Your task to perform on an android device: Empty the shopping cart on walmart. Image 0: 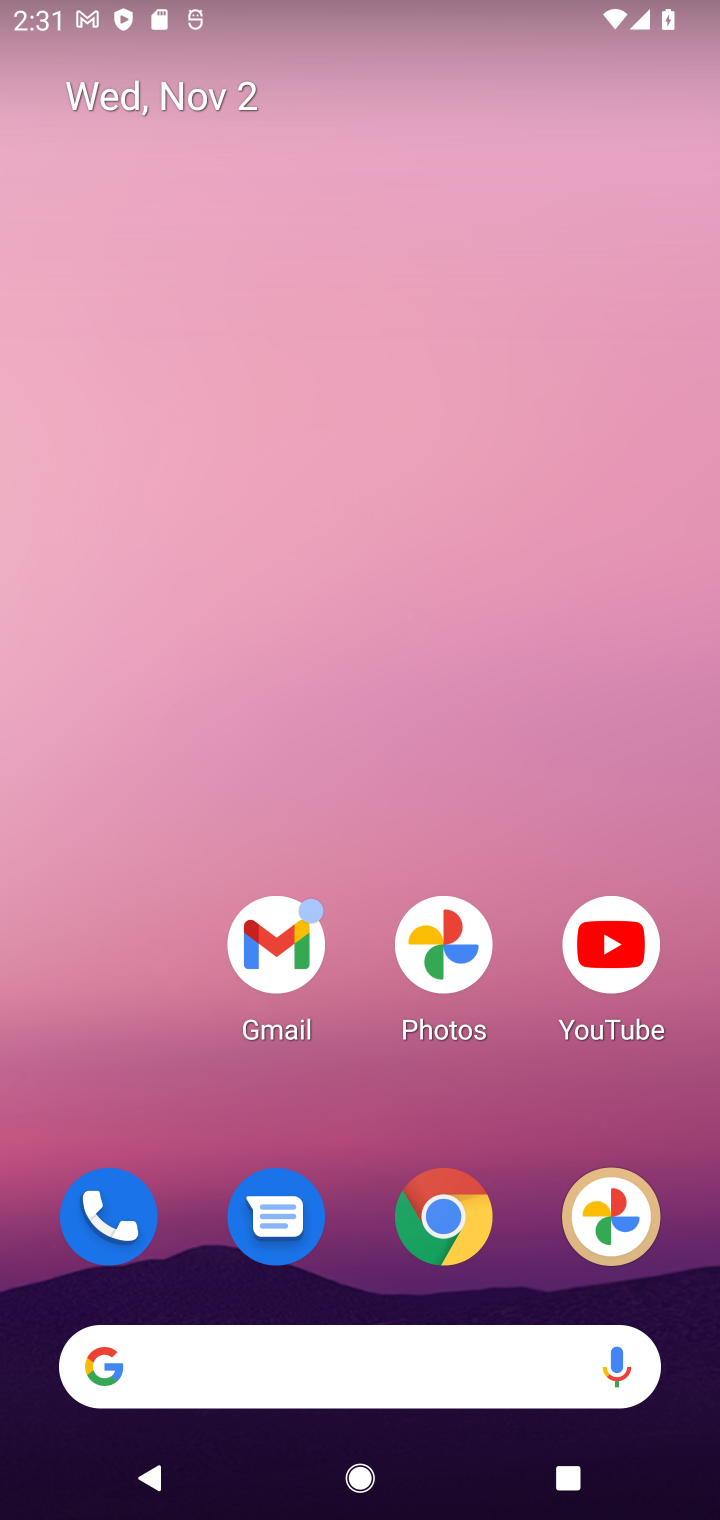
Step 0: click (437, 1228)
Your task to perform on an android device: Empty the shopping cart on walmart. Image 1: 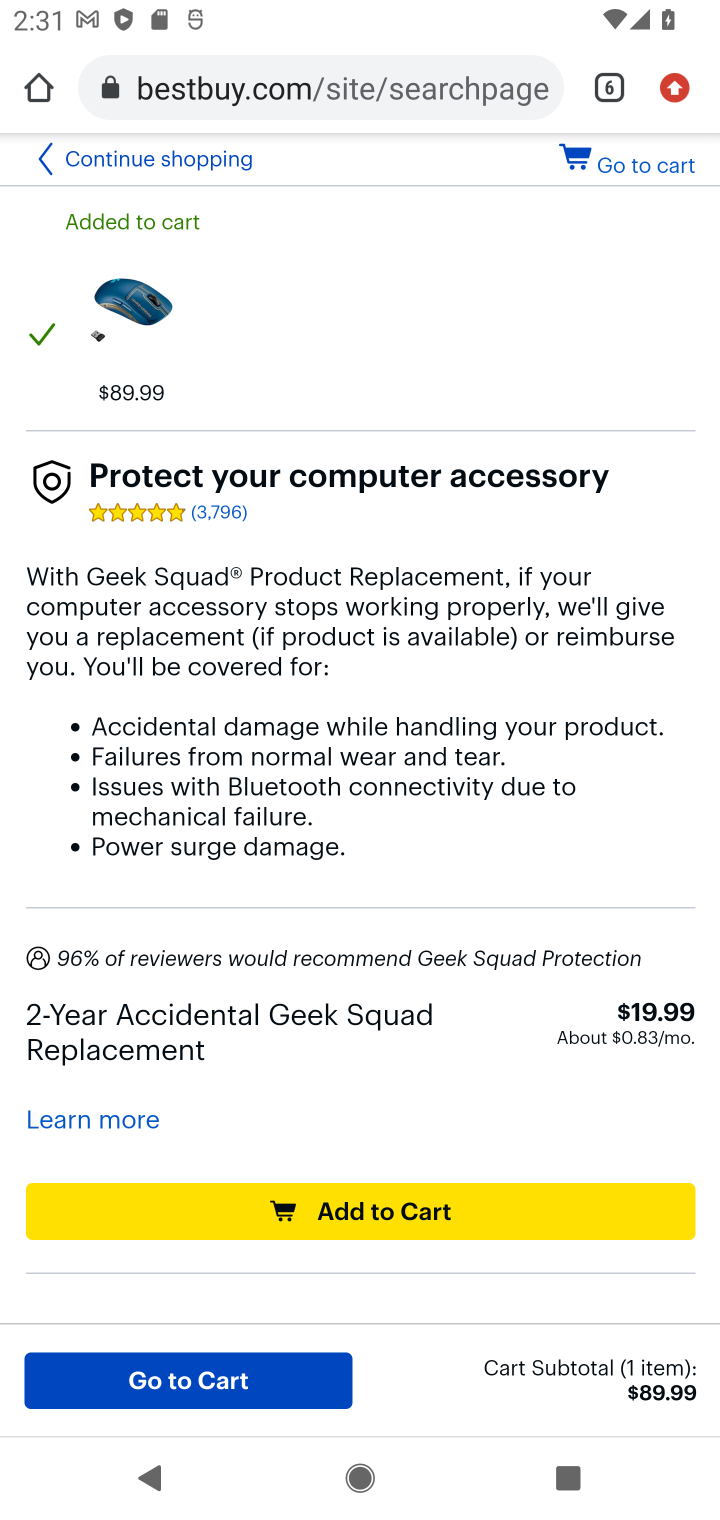
Step 1: click (601, 76)
Your task to perform on an android device: Empty the shopping cart on walmart. Image 2: 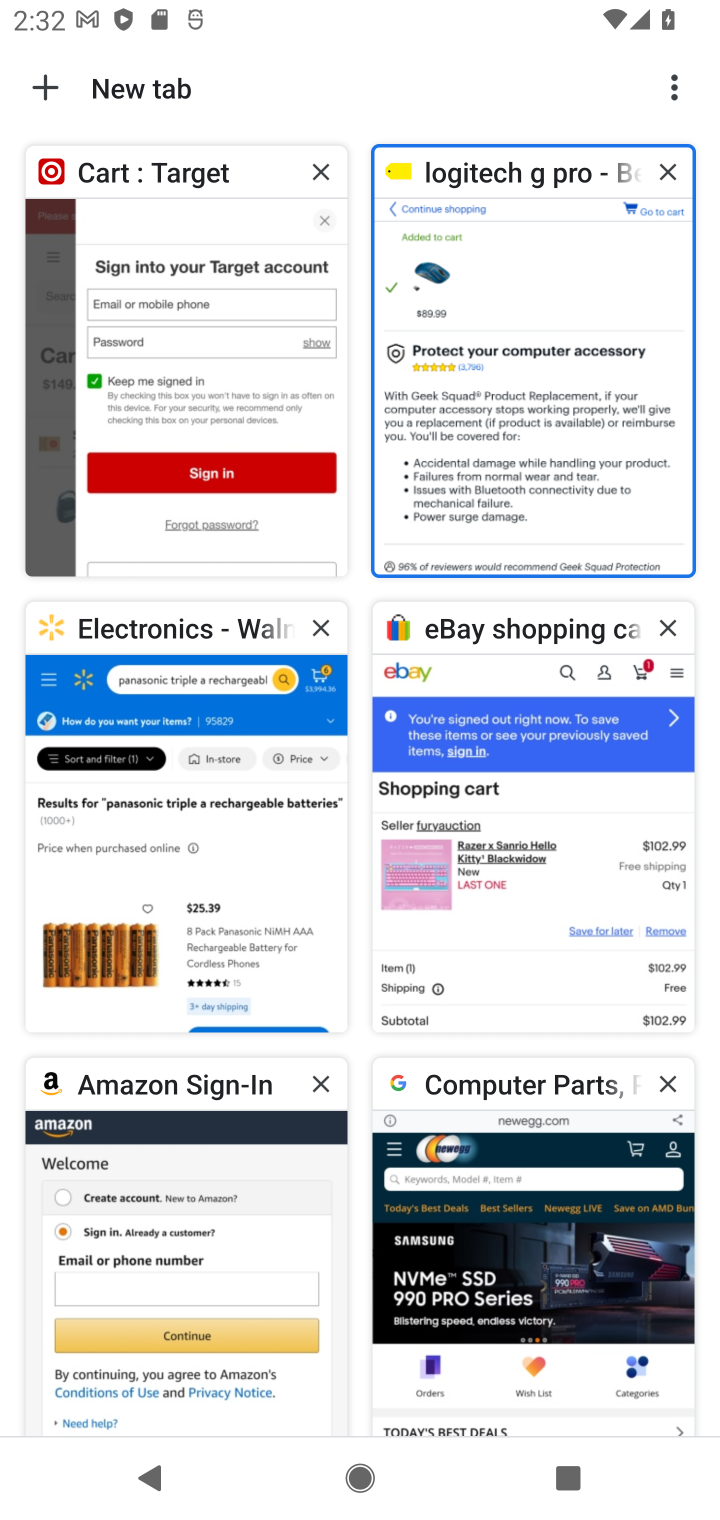
Step 2: click (164, 724)
Your task to perform on an android device: Empty the shopping cart on walmart. Image 3: 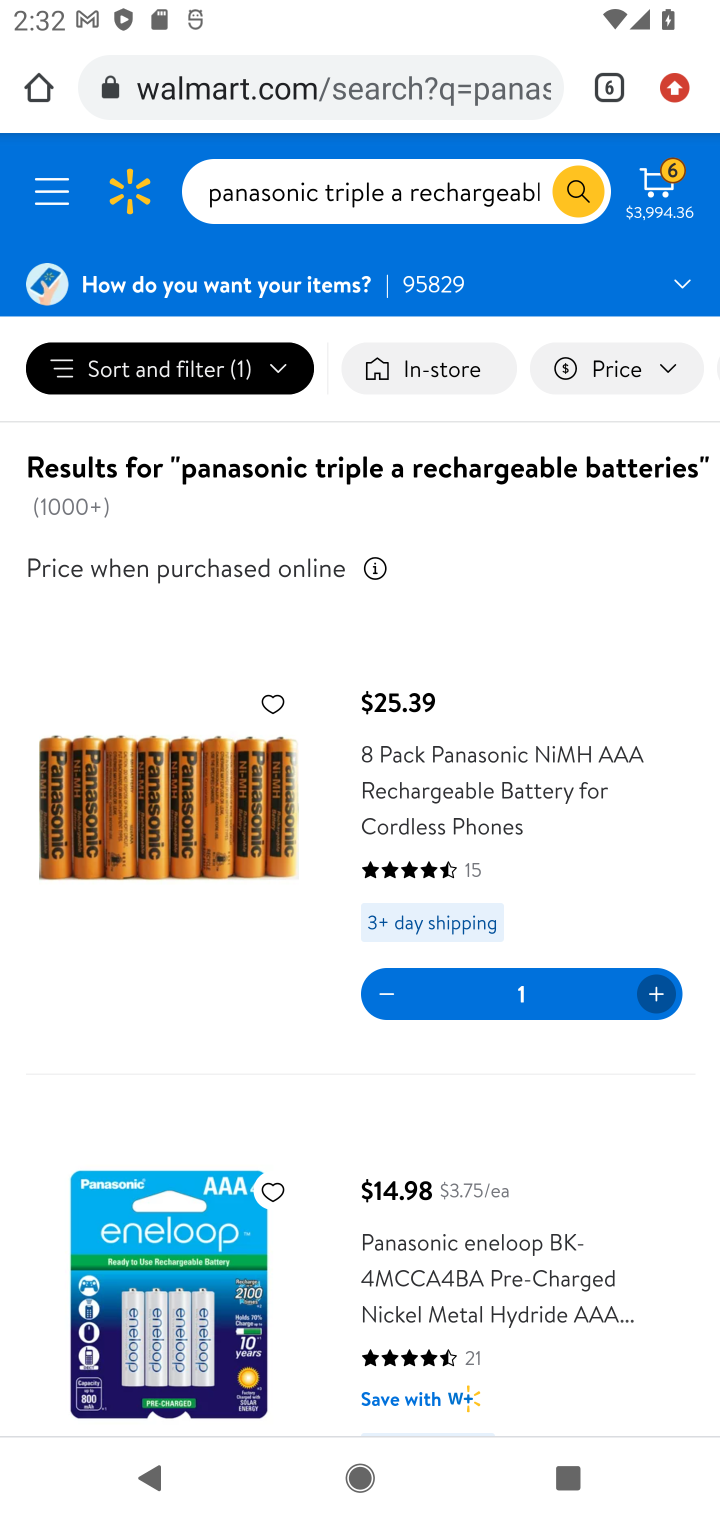
Step 3: click (164, 724)
Your task to perform on an android device: Empty the shopping cart on walmart. Image 4: 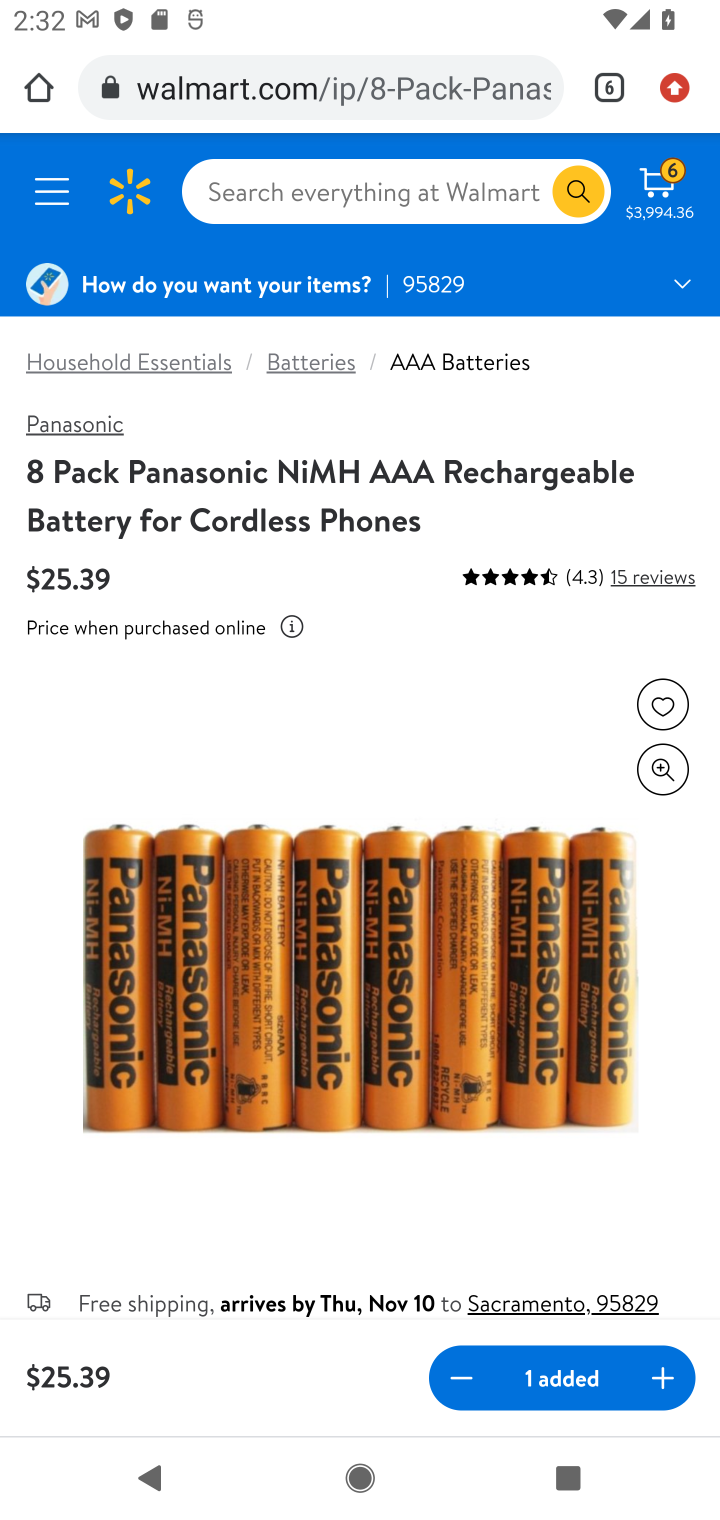
Step 4: click (661, 181)
Your task to perform on an android device: Empty the shopping cart on walmart. Image 5: 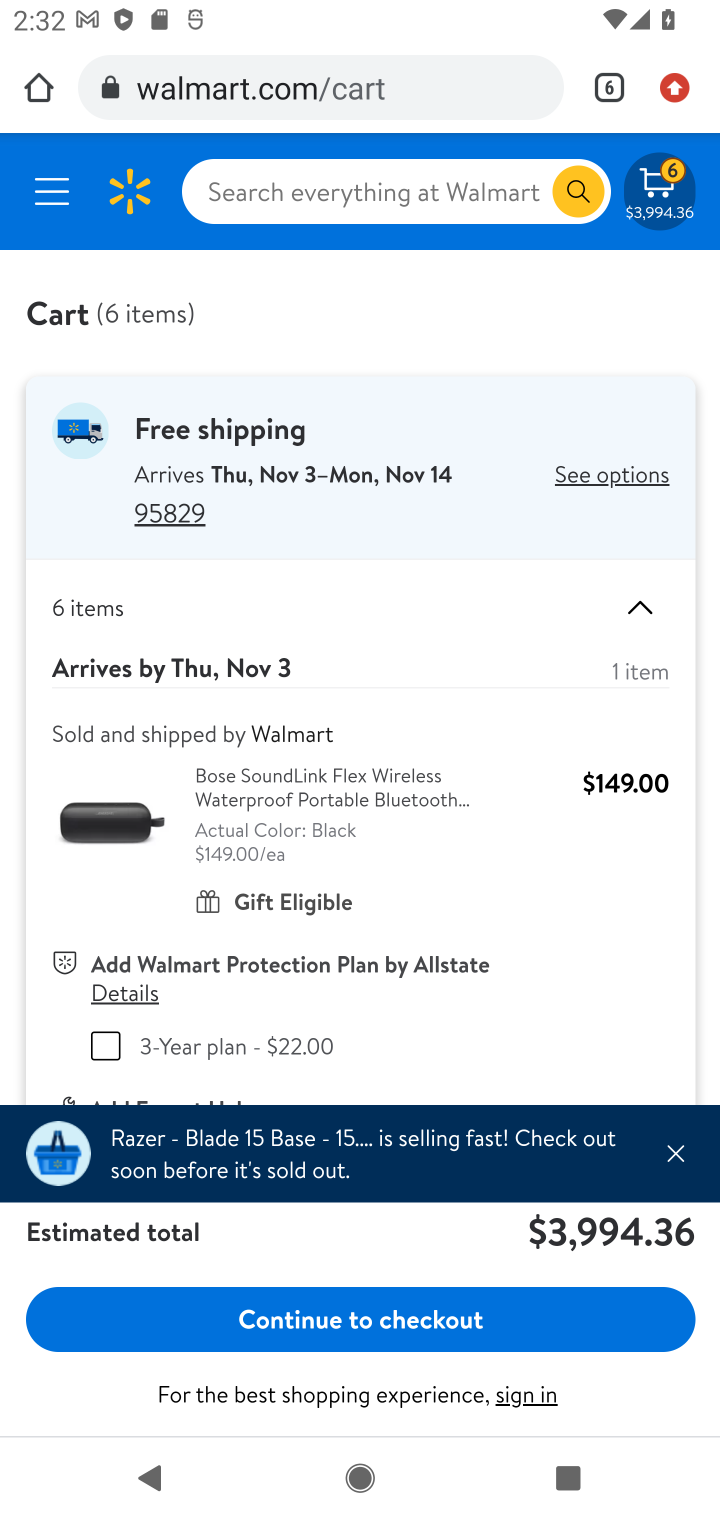
Step 5: drag from (475, 1036) to (456, 752)
Your task to perform on an android device: Empty the shopping cart on walmart. Image 6: 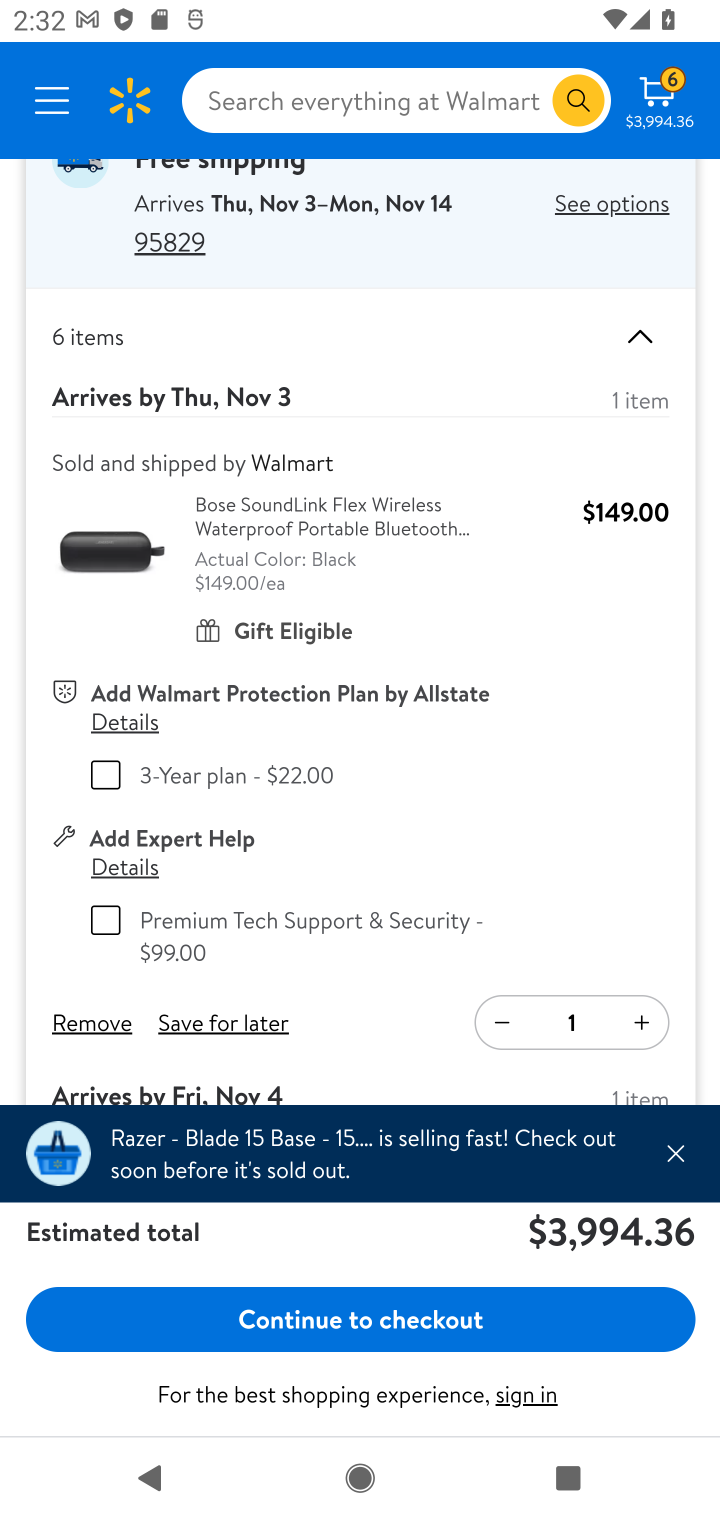
Step 6: click (90, 1020)
Your task to perform on an android device: Empty the shopping cart on walmart. Image 7: 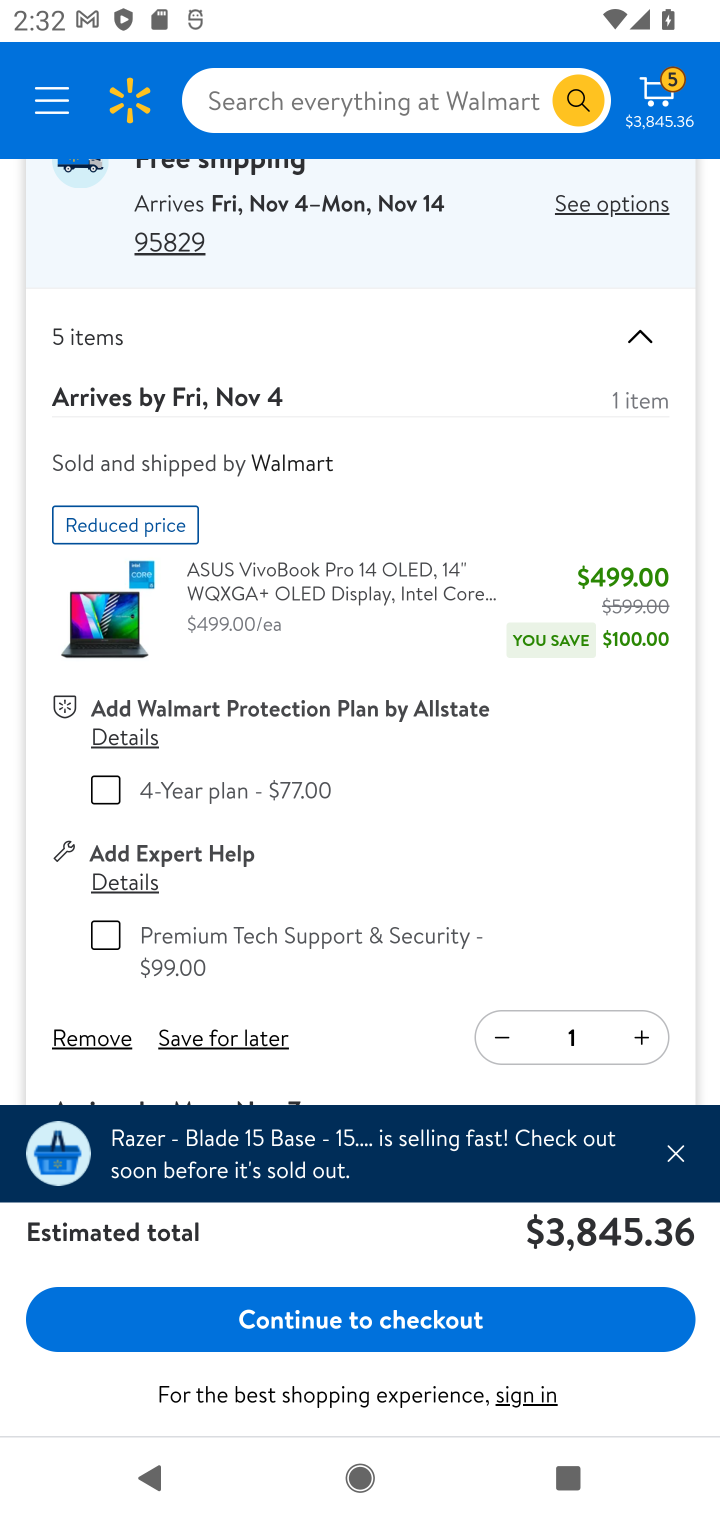
Step 7: click (79, 1037)
Your task to perform on an android device: Empty the shopping cart on walmart. Image 8: 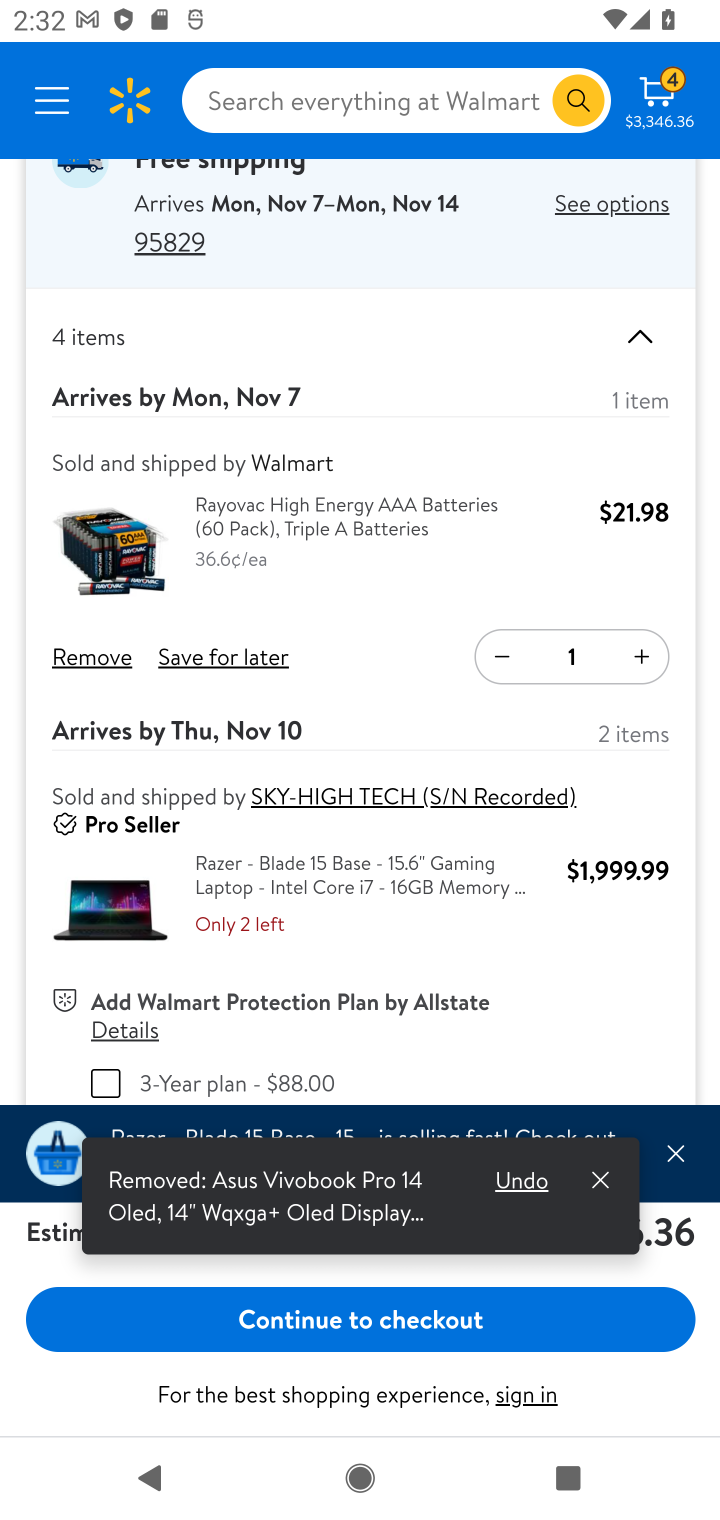
Step 8: click (679, 1158)
Your task to perform on an android device: Empty the shopping cart on walmart. Image 9: 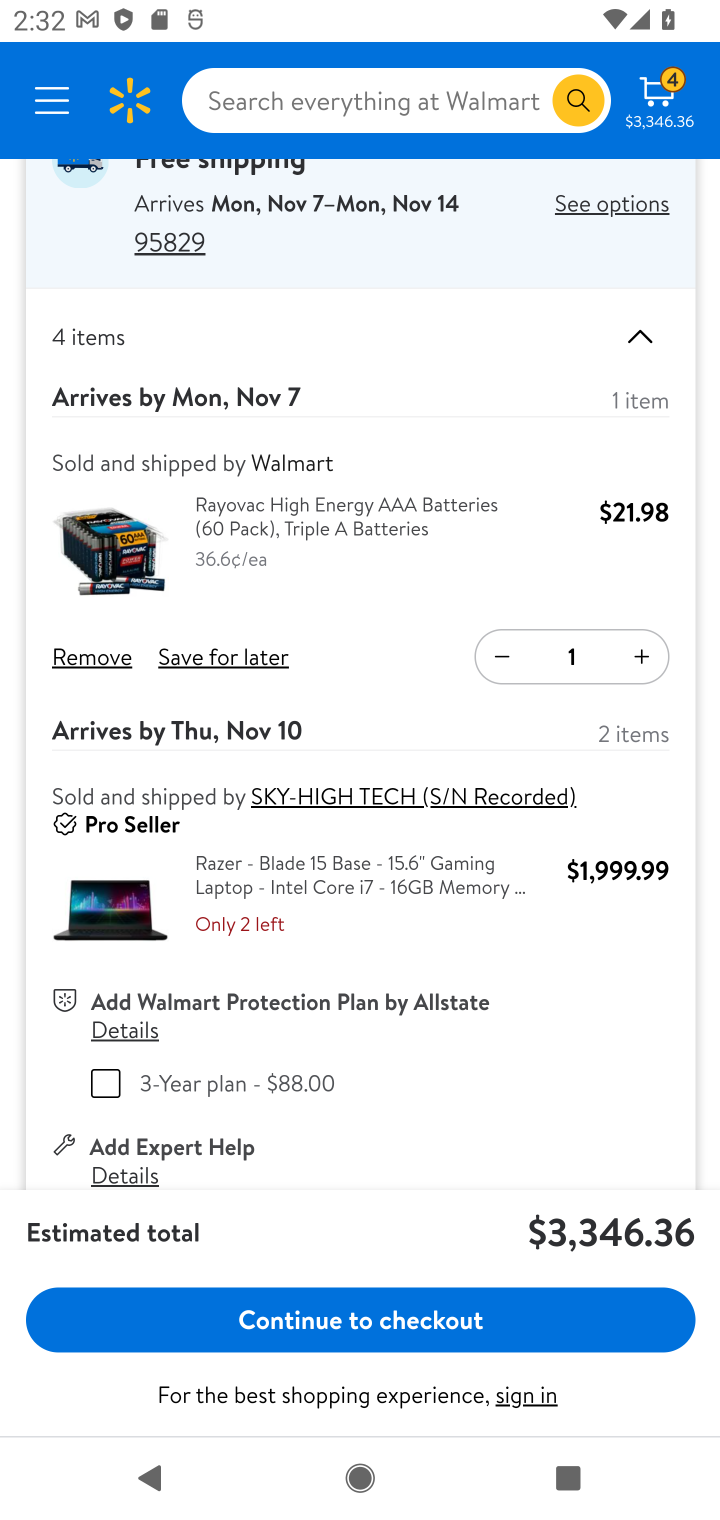
Step 9: click (84, 661)
Your task to perform on an android device: Empty the shopping cart on walmart. Image 10: 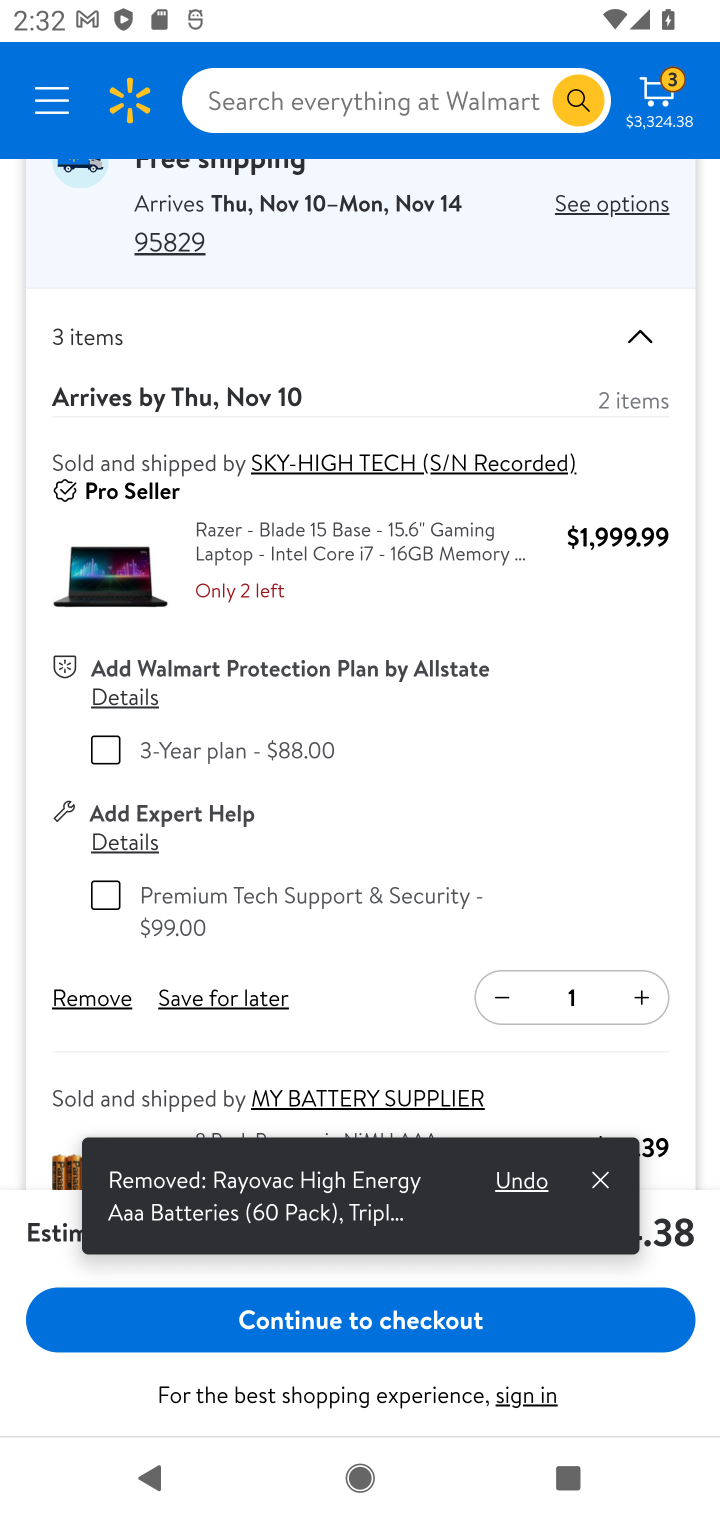
Step 10: click (73, 1002)
Your task to perform on an android device: Empty the shopping cart on walmart. Image 11: 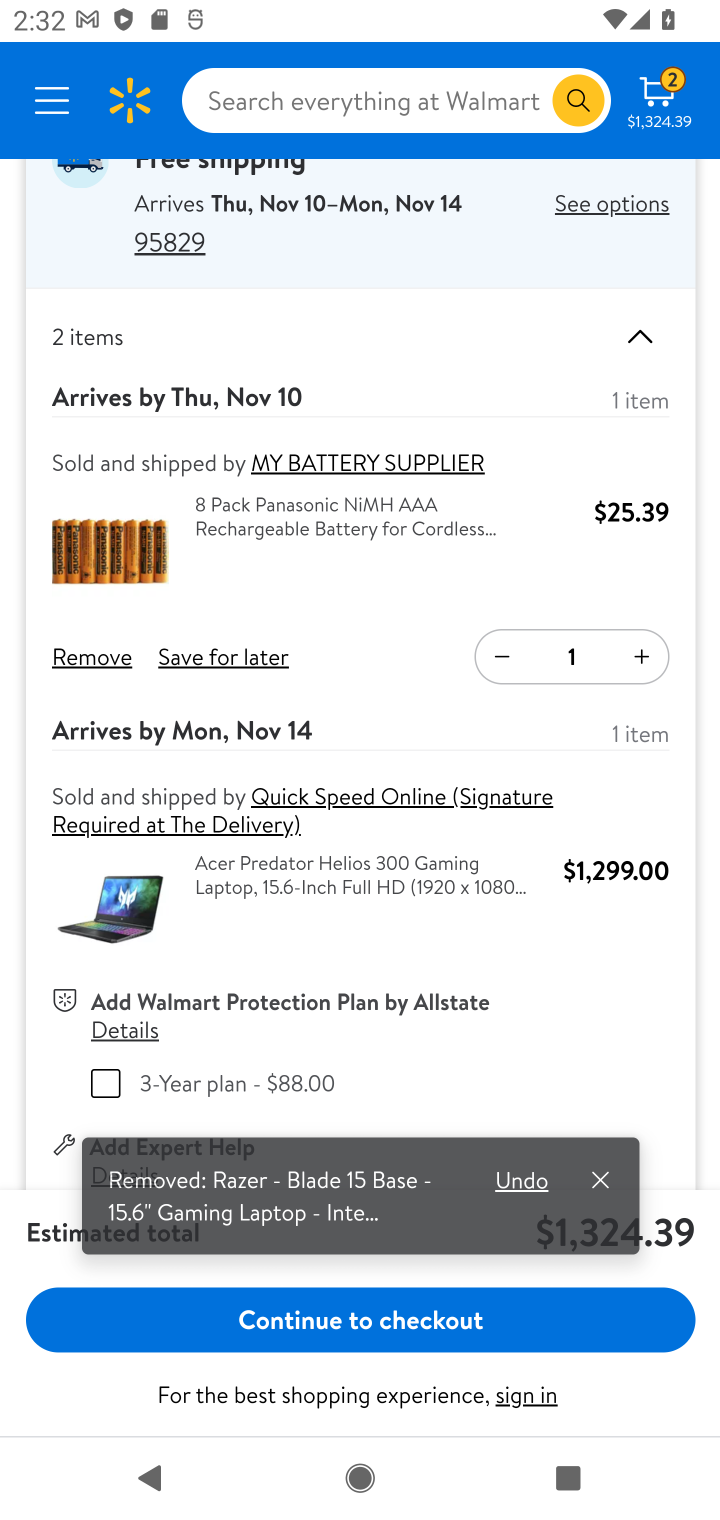
Step 11: click (83, 654)
Your task to perform on an android device: Empty the shopping cart on walmart. Image 12: 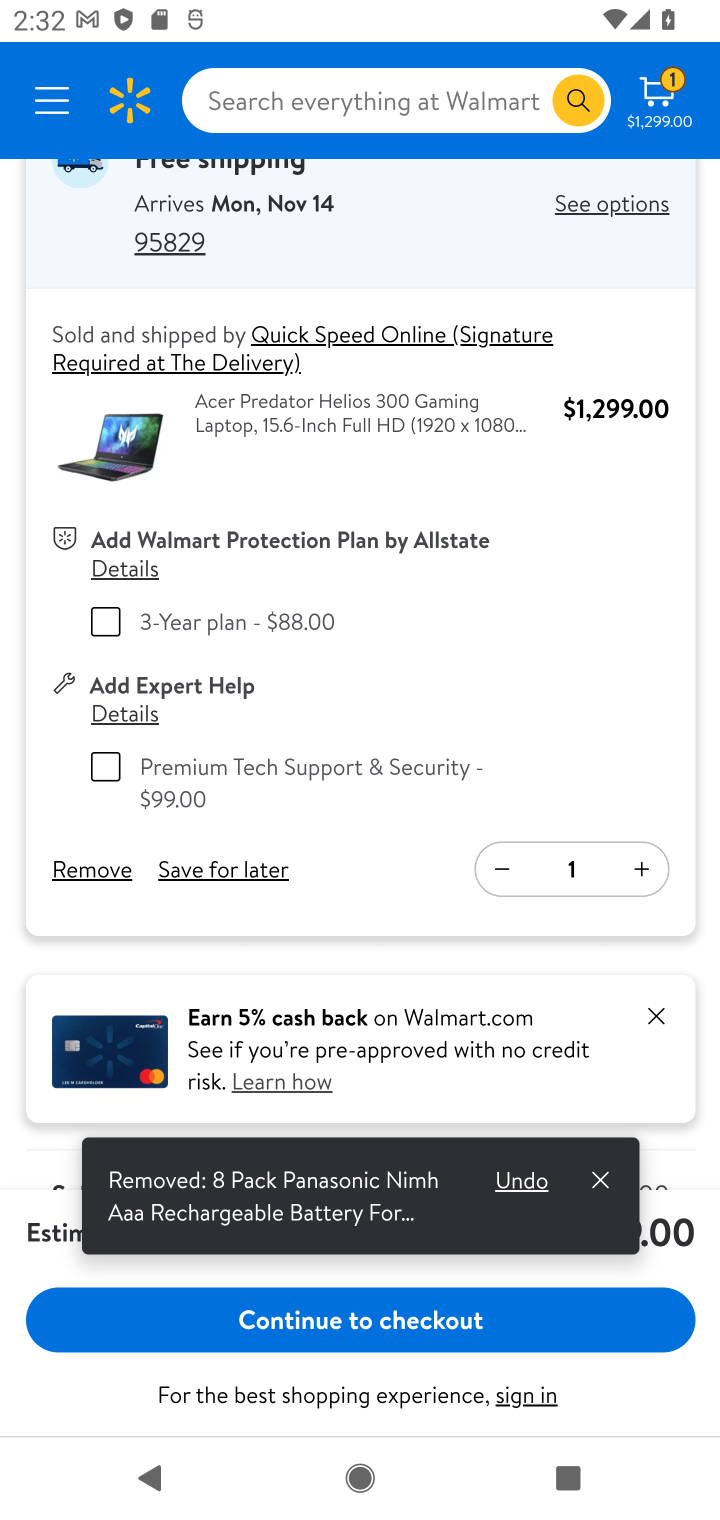
Step 12: click (79, 871)
Your task to perform on an android device: Empty the shopping cart on walmart. Image 13: 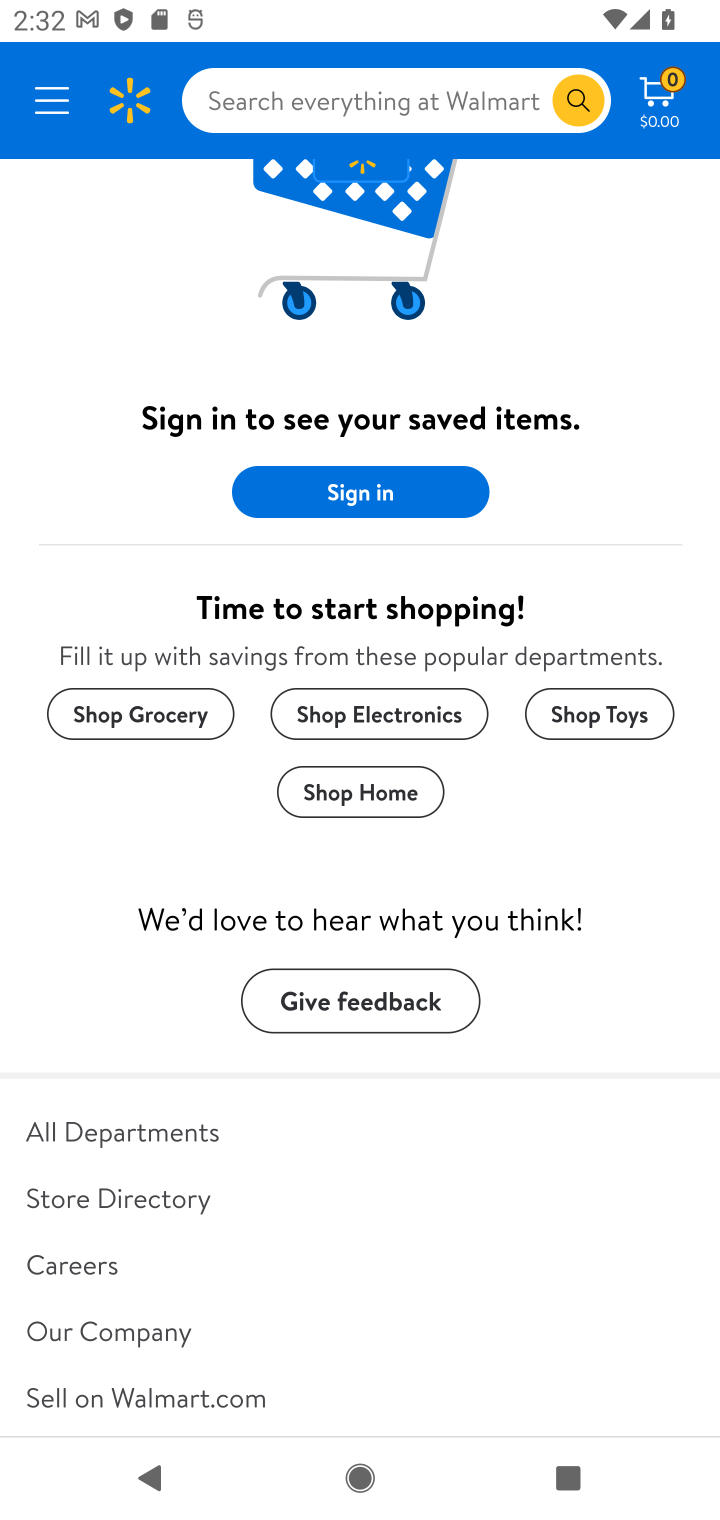
Step 13: task complete